Your task to perform on an android device: Go to eBay Image 0: 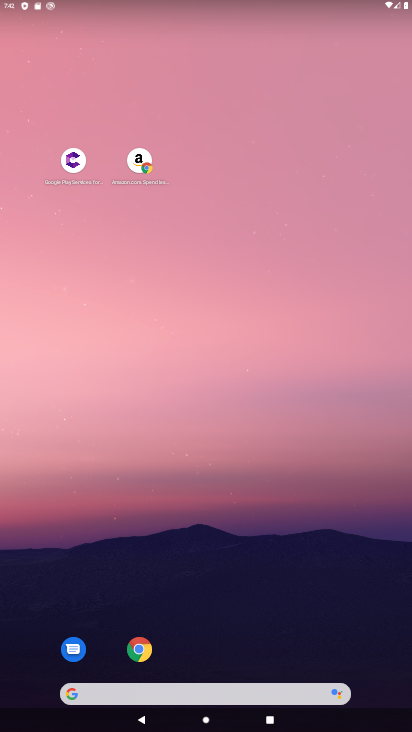
Step 0: click (138, 647)
Your task to perform on an android device: Go to eBay Image 1: 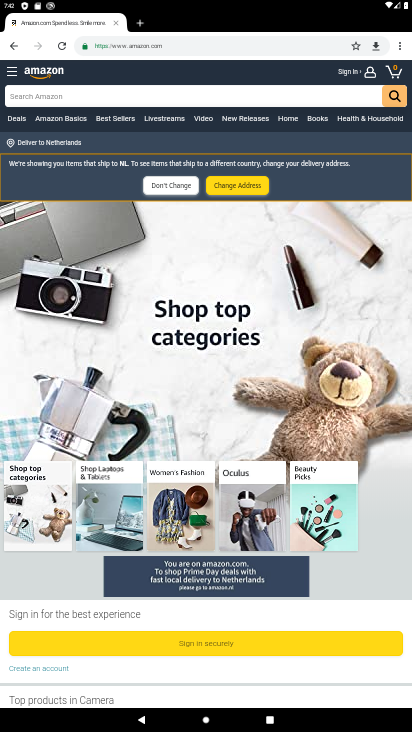
Step 1: click (198, 45)
Your task to perform on an android device: Go to eBay Image 2: 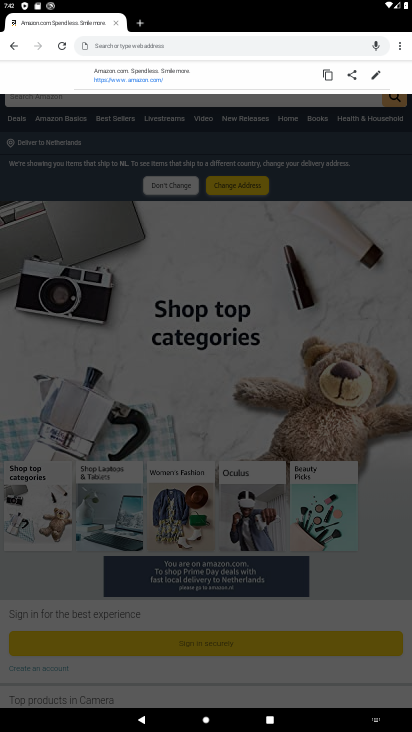
Step 2: type "eBay"
Your task to perform on an android device: Go to eBay Image 3: 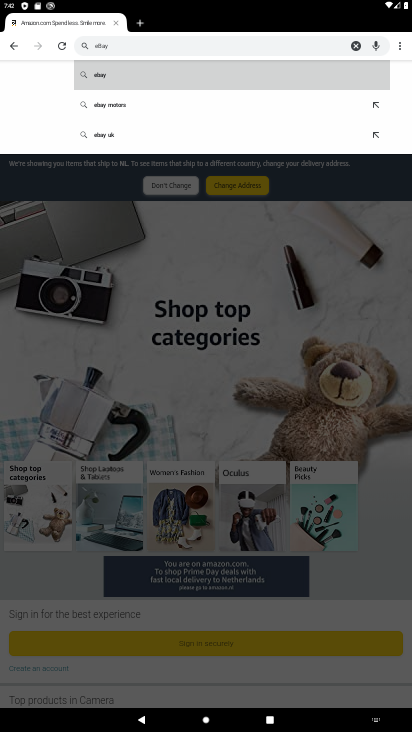
Step 3: click (106, 80)
Your task to perform on an android device: Go to eBay Image 4: 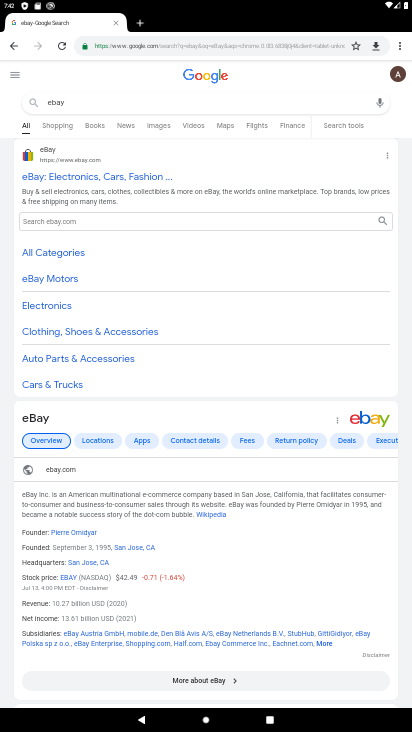
Step 4: click (75, 180)
Your task to perform on an android device: Go to eBay Image 5: 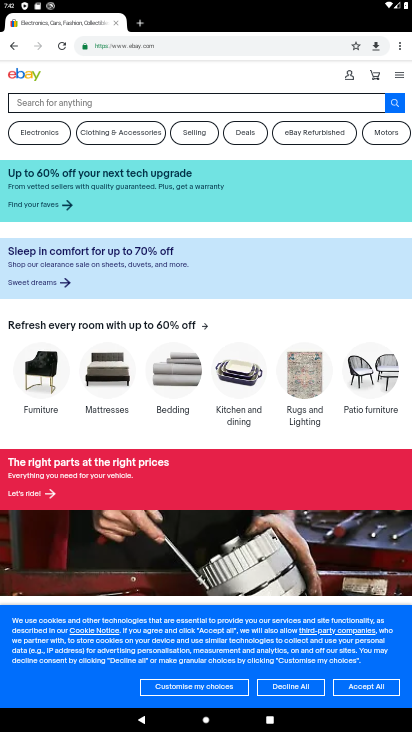
Step 5: task complete